Your task to perform on an android device: add a contact Image 0: 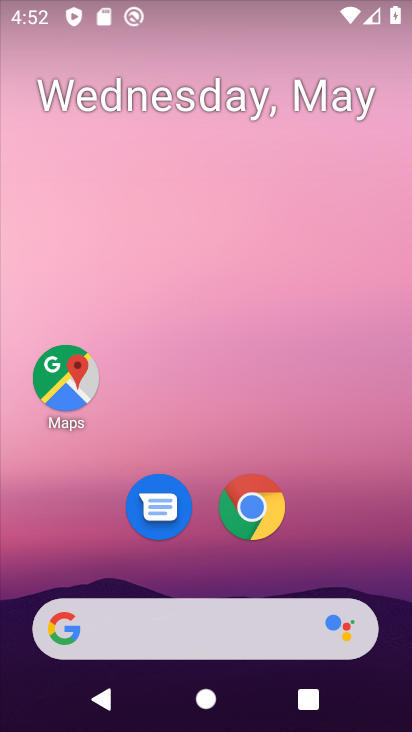
Step 0: drag from (338, 539) to (227, 106)
Your task to perform on an android device: add a contact Image 1: 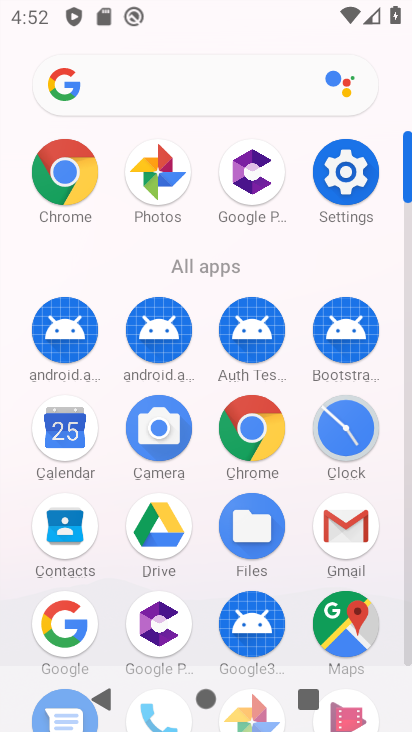
Step 1: click (65, 528)
Your task to perform on an android device: add a contact Image 2: 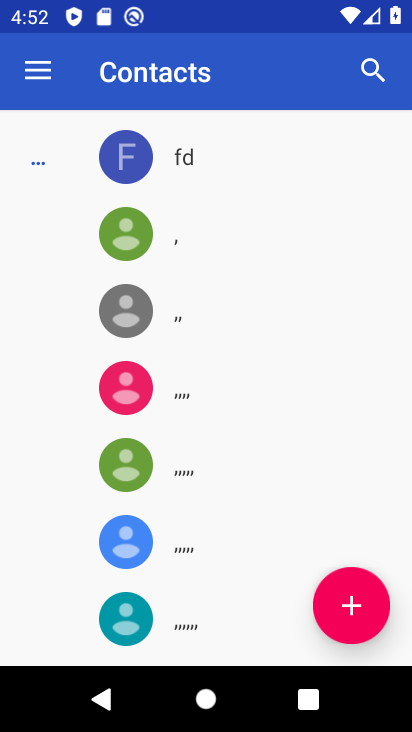
Step 2: click (352, 608)
Your task to perform on an android device: add a contact Image 3: 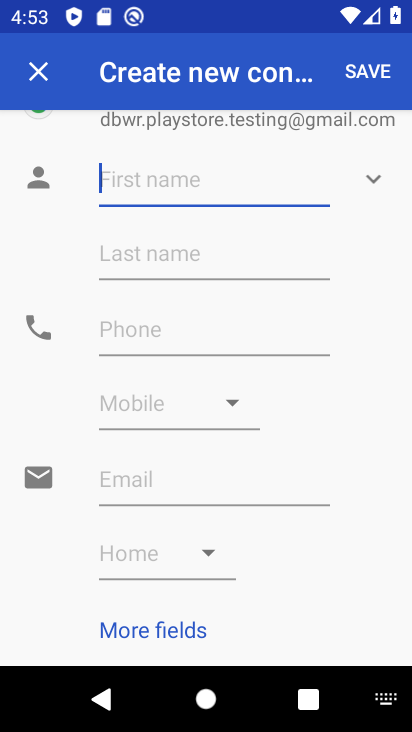
Step 3: type "Chandrashekhar"
Your task to perform on an android device: add a contact Image 4: 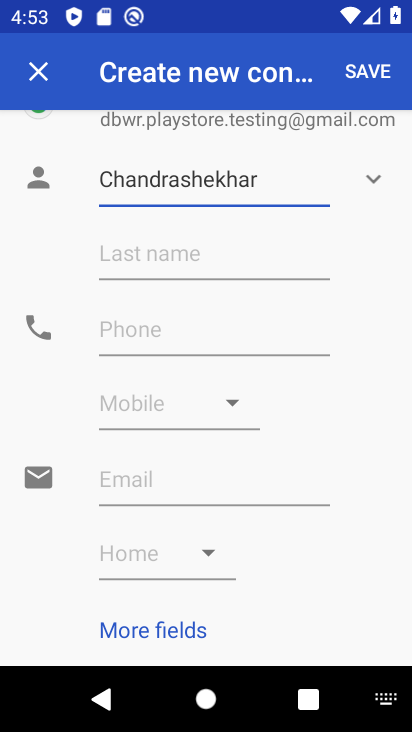
Step 4: click (154, 255)
Your task to perform on an android device: add a contact Image 5: 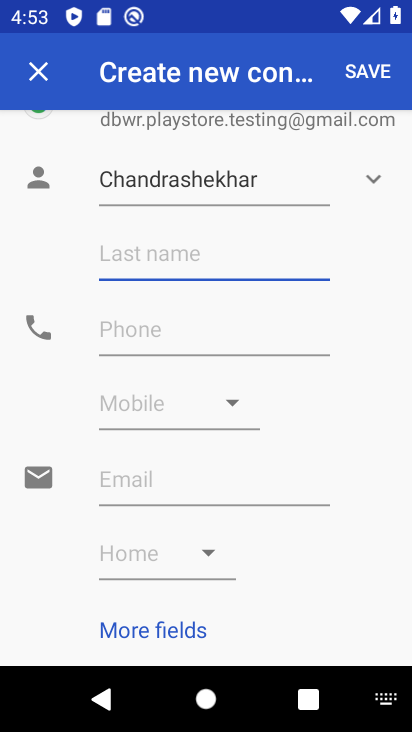
Step 5: type "Reddy"
Your task to perform on an android device: add a contact Image 6: 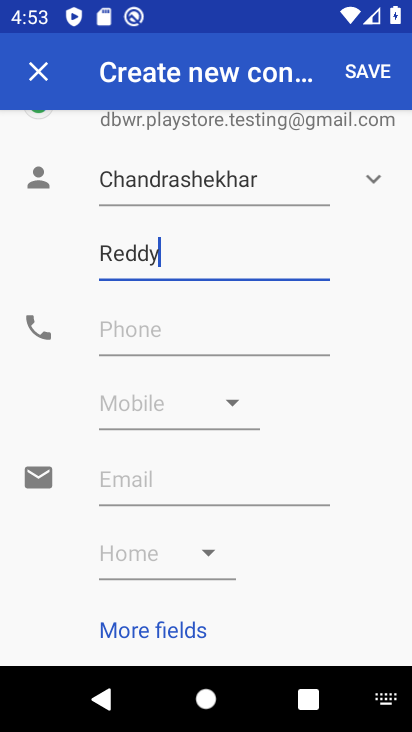
Step 6: click (227, 331)
Your task to perform on an android device: add a contact Image 7: 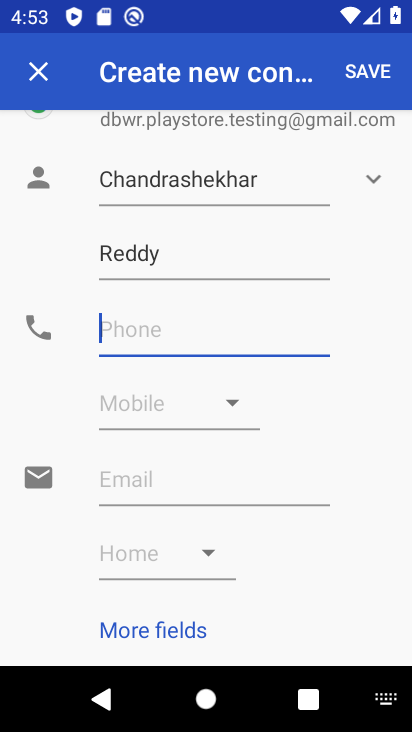
Step 7: type "09906571536"
Your task to perform on an android device: add a contact Image 8: 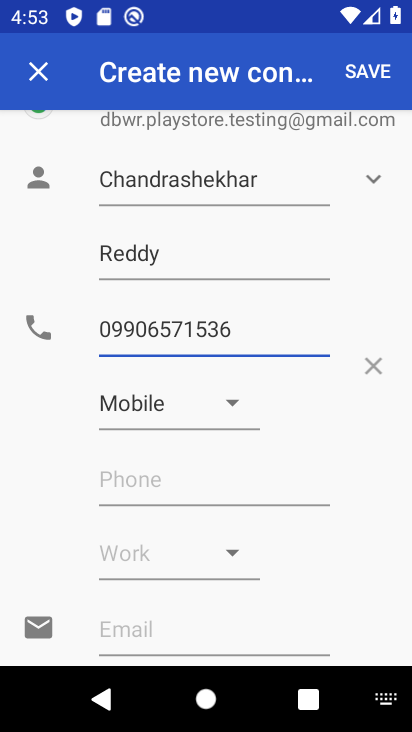
Step 8: click (363, 73)
Your task to perform on an android device: add a contact Image 9: 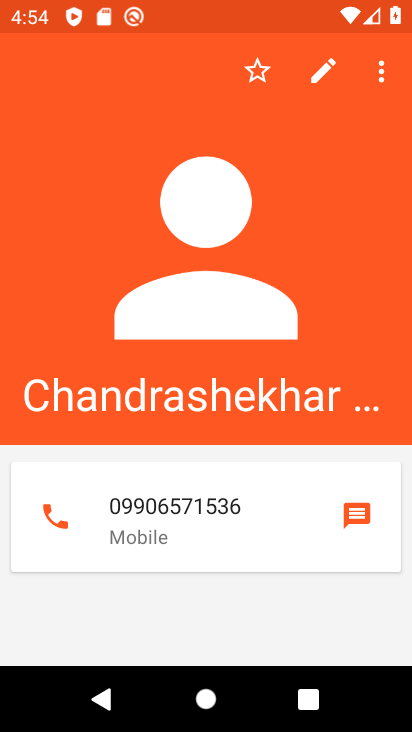
Step 9: task complete